Your task to perform on an android device: Is it going to rain today? Image 0: 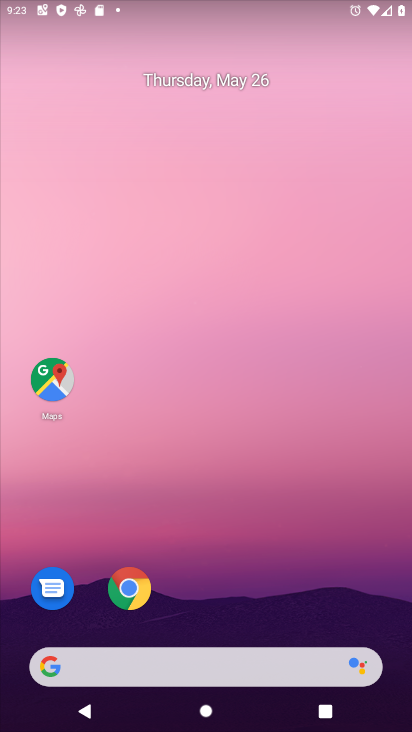
Step 0: drag from (360, 605) to (256, 58)
Your task to perform on an android device: Is it going to rain today? Image 1: 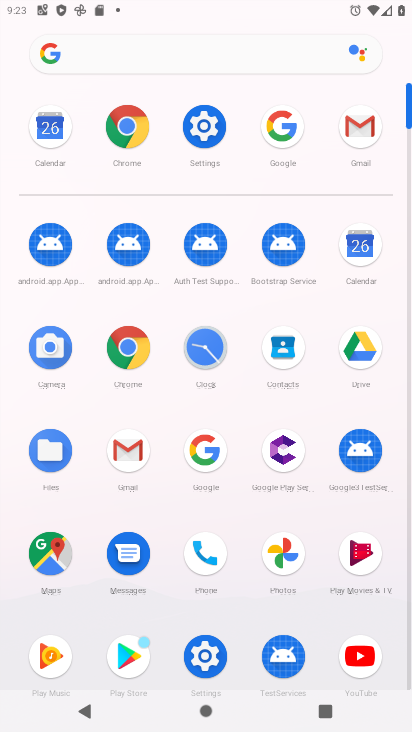
Step 1: click (217, 453)
Your task to perform on an android device: Is it going to rain today? Image 2: 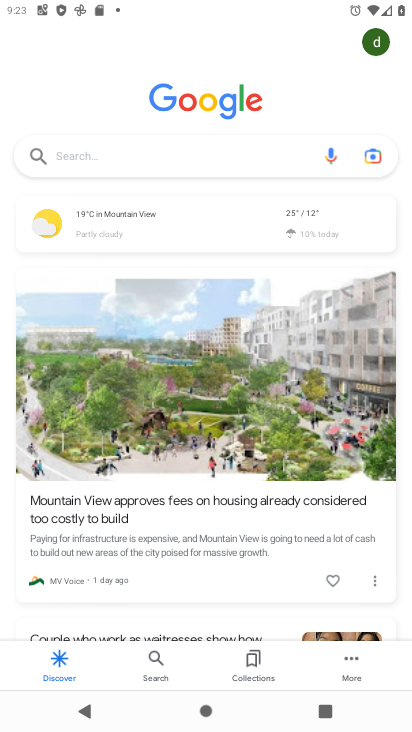
Step 2: click (179, 157)
Your task to perform on an android device: Is it going to rain today? Image 3: 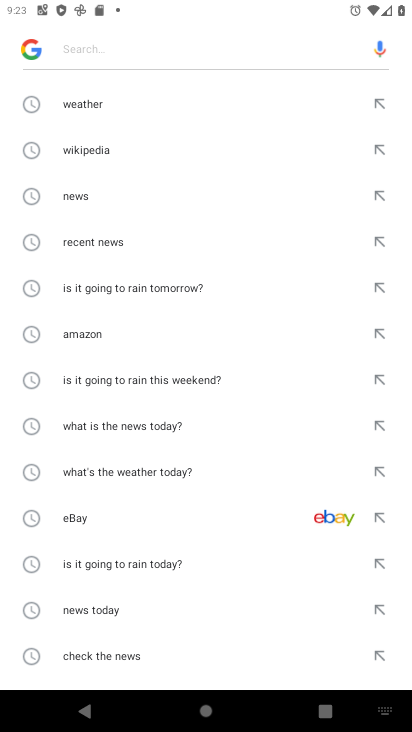
Step 3: click (129, 573)
Your task to perform on an android device: Is it going to rain today? Image 4: 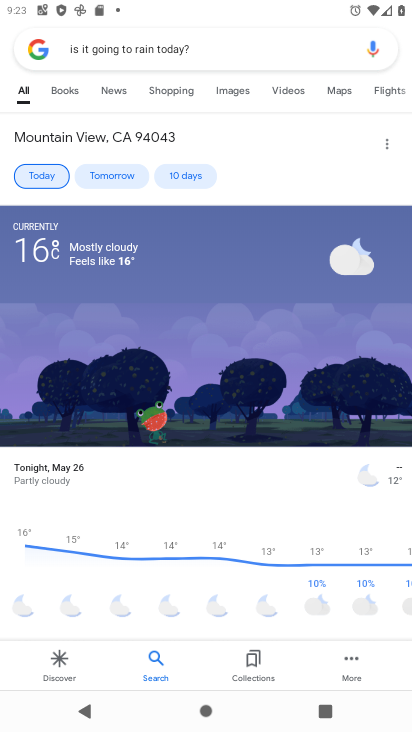
Step 4: task complete